Your task to perform on an android device: Open internet settings Image 0: 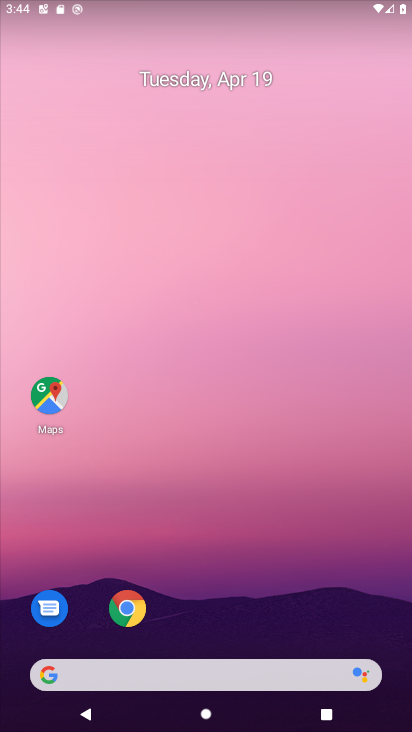
Step 0: drag from (248, 425) to (222, 56)
Your task to perform on an android device: Open internet settings Image 1: 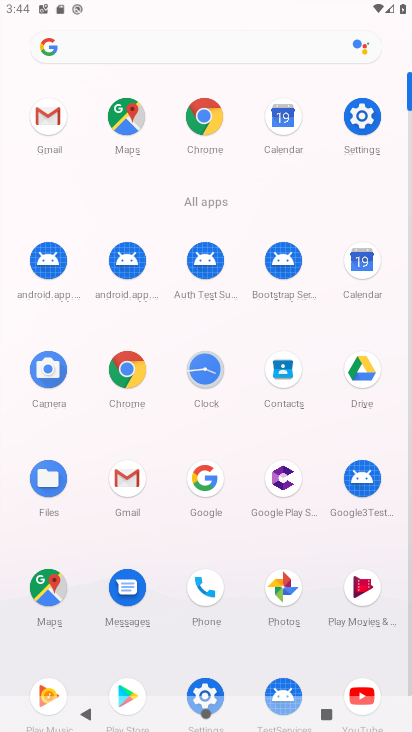
Step 1: click (371, 111)
Your task to perform on an android device: Open internet settings Image 2: 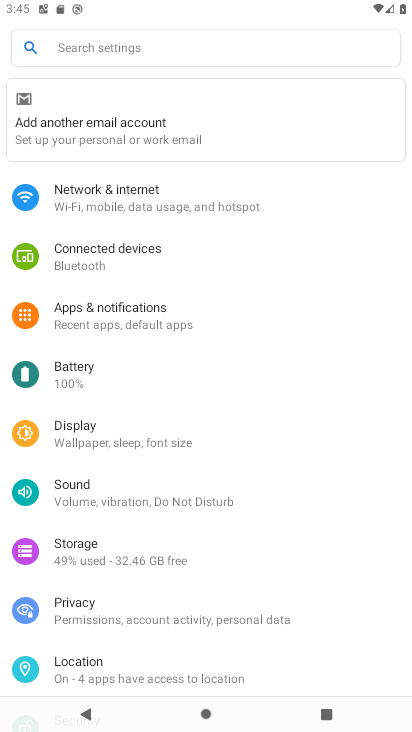
Step 2: click (138, 198)
Your task to perform on an android device: Open internet settings Image 3: 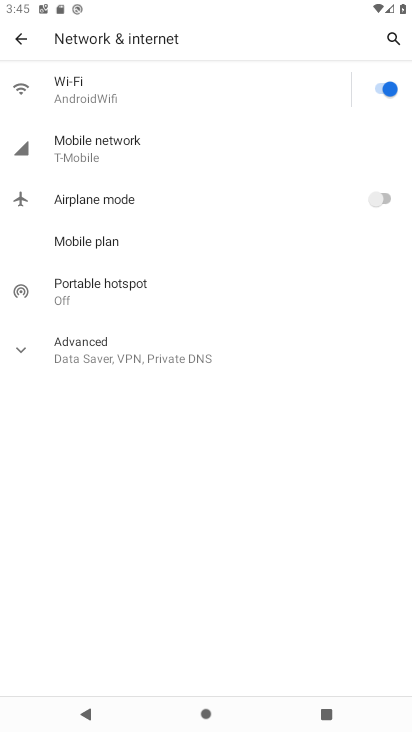
Step 3: task complete